Your task to perform on an android device: Open Google Image 0: 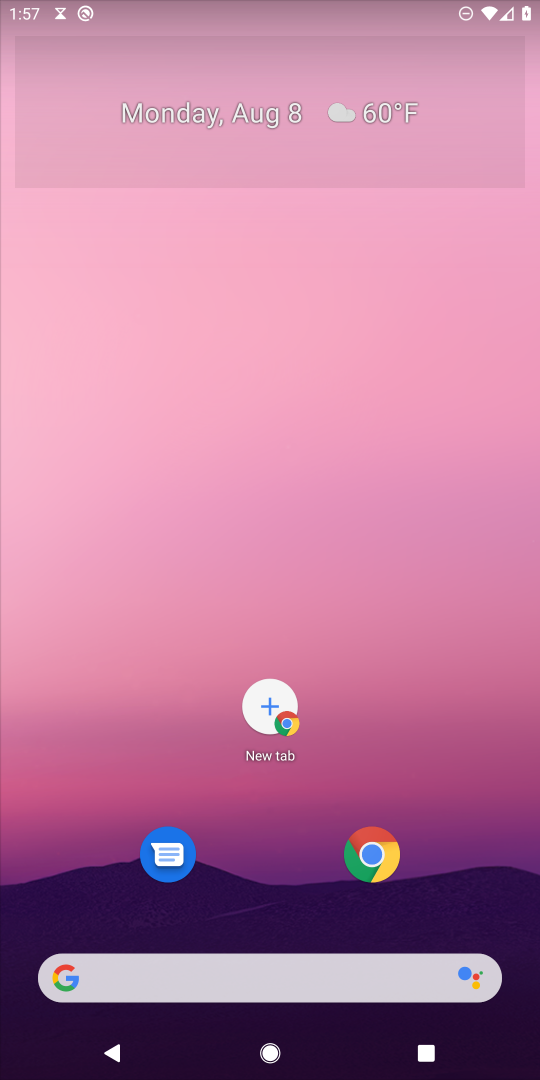
Step 0: press home button
Your task to perform on an android device: Open Google Image 1: 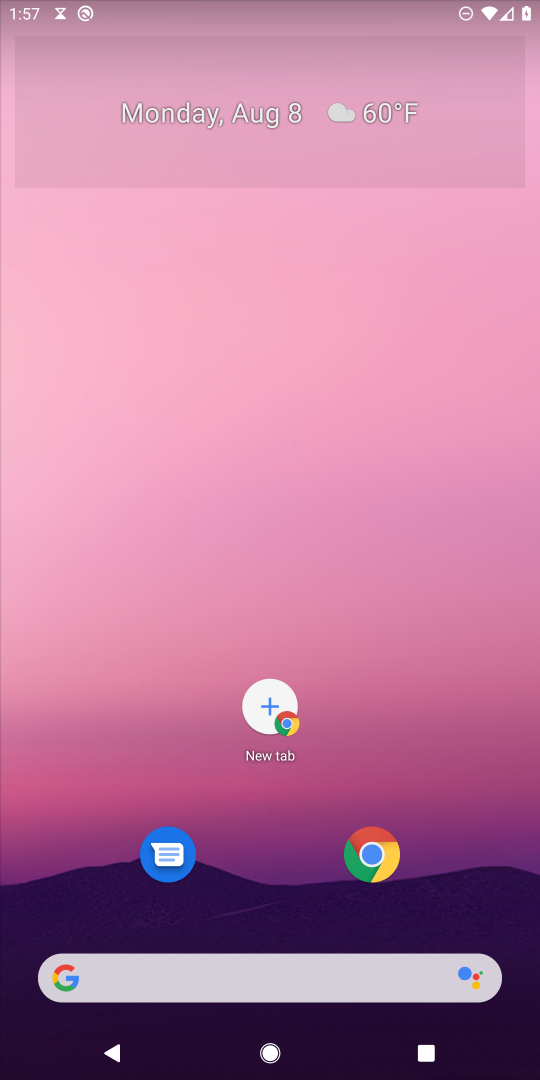
Step 1: drag from (445, 851) to (450, 162)
Your task to perform on an android device: Open Google Image 2: 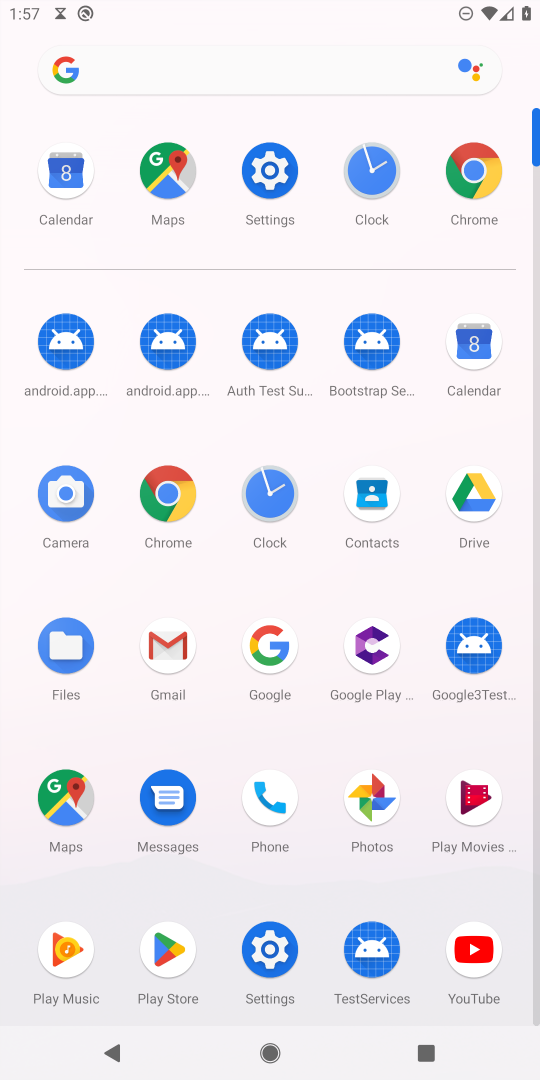
Step 2: click (251, 639)
Your task to perform on an android device: Open Google Image 3: 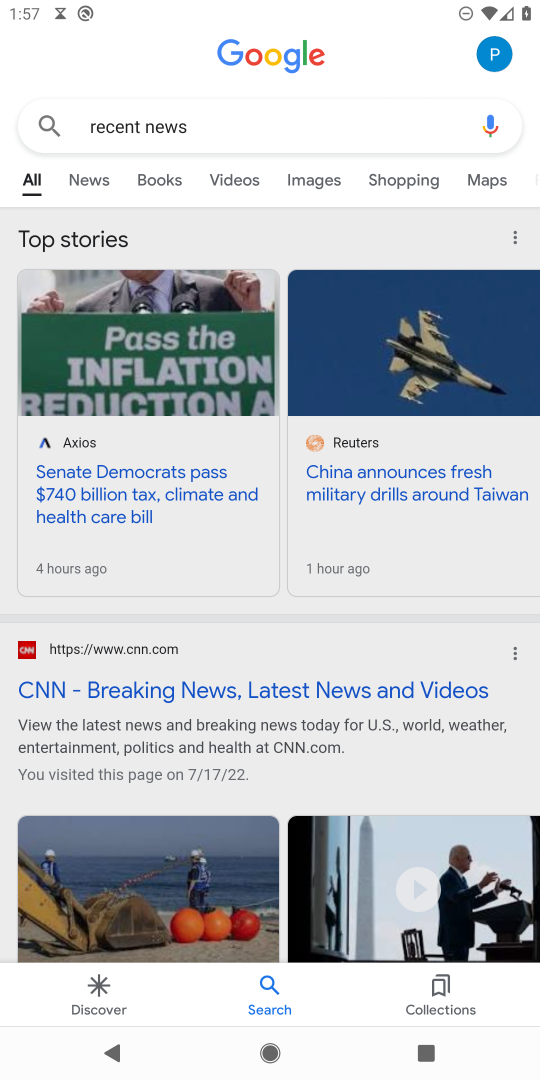
Step 3: press home button
Your task to perform on an android device: Open Google Image 4: 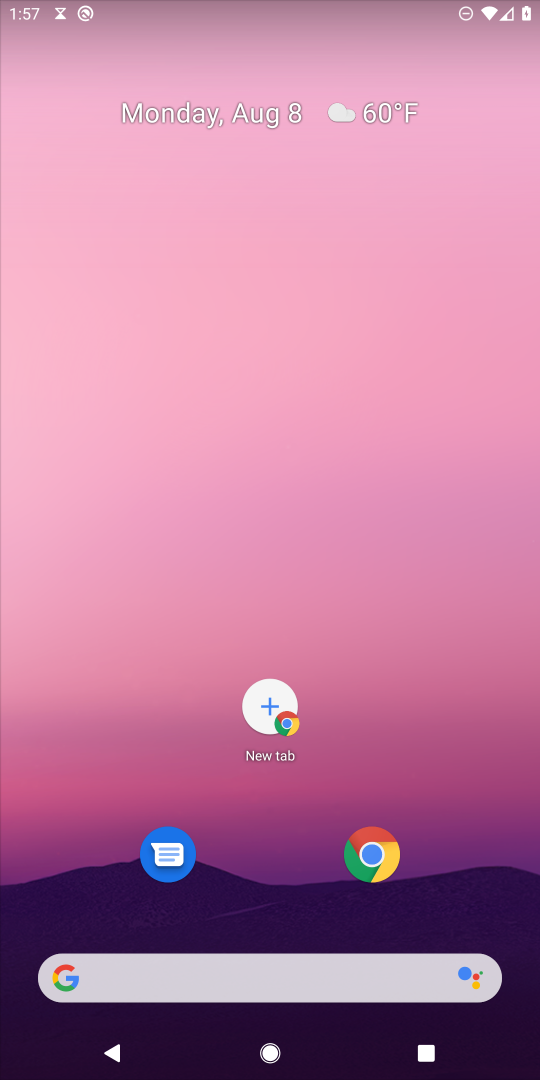
Step 4: drag from (483, 860) to (462, 63)
Your task to perform on an android device: Open Google Image 5: 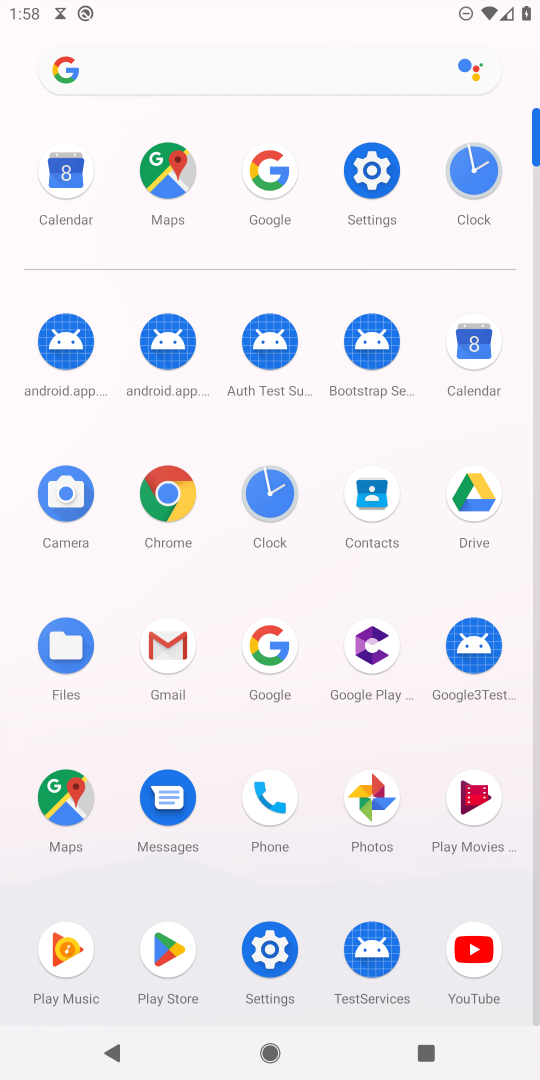
Step 5: click (273, 634)
Your task to perform on an android device: Open Google Image 6: 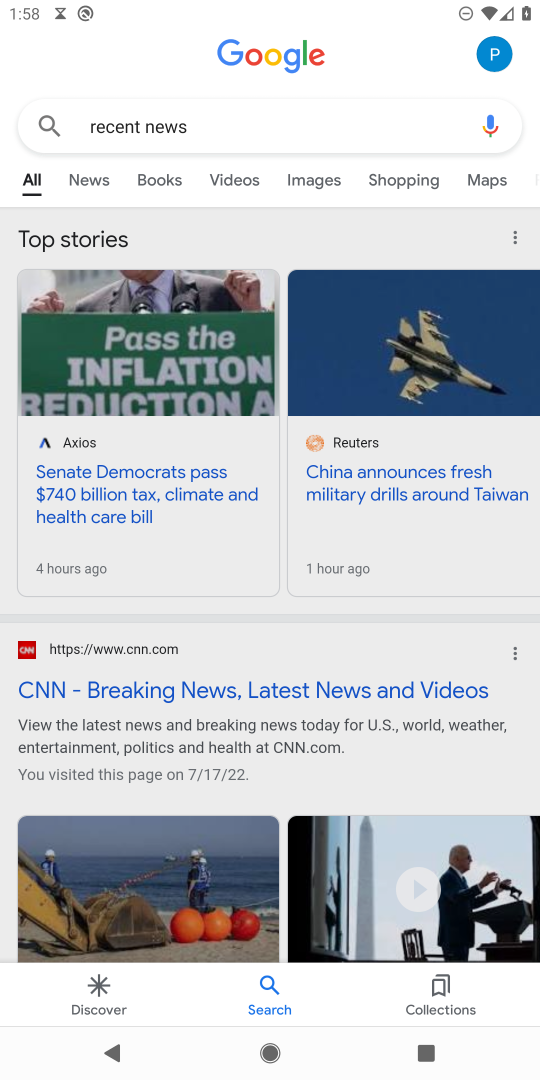
Step 6: task complete